Your task to perform on an android device: Open Google Maps and go to "Timeline" Image 0: 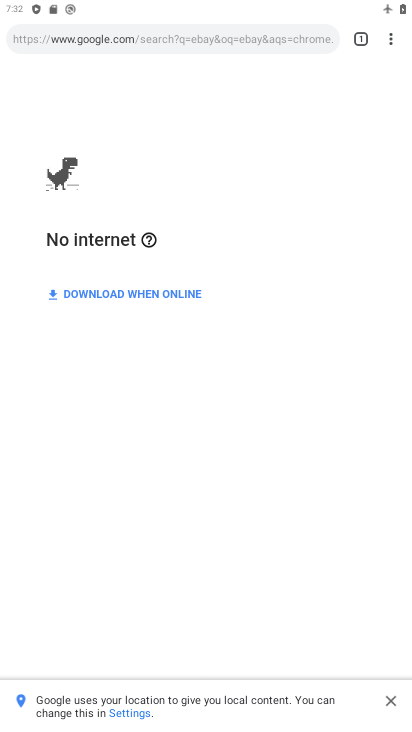
Step 0: press home button
Your task to perform on an android device: Open Google Maps and go to "Timeline" Image 1: 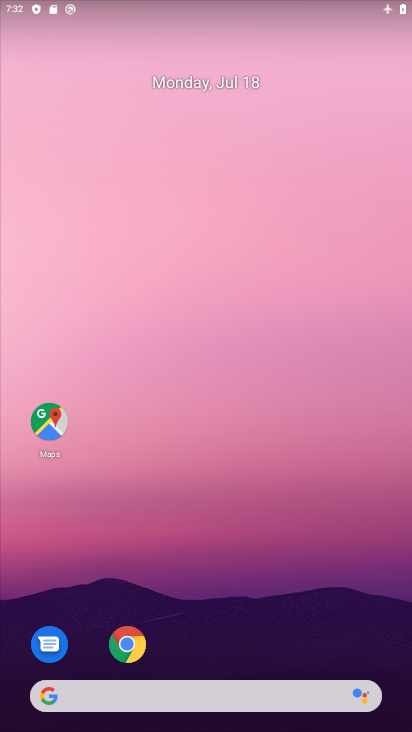
Step 1: drag from (363, 630) to (404, 459)
Your task to perform on an android device: Open Google Maps and go to "Timeline" Image 2: 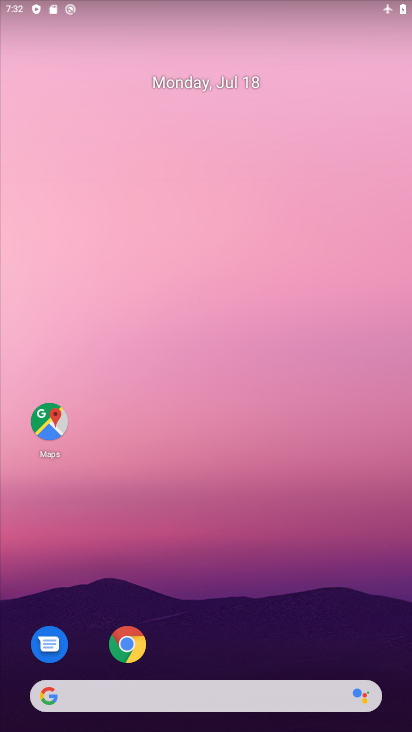
Step 2: drag from (318, 620) to (400, 233)
Your task to perform on an android device: Open Google Maps and go to "Timeline" Image 3: 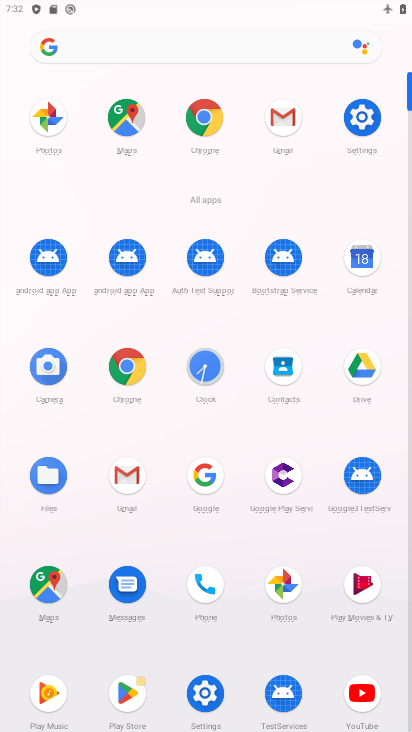
Step 3: click (127, 123)
Your task to perform on an android device: Open Google Maps and go to "Timeline" Image 4: 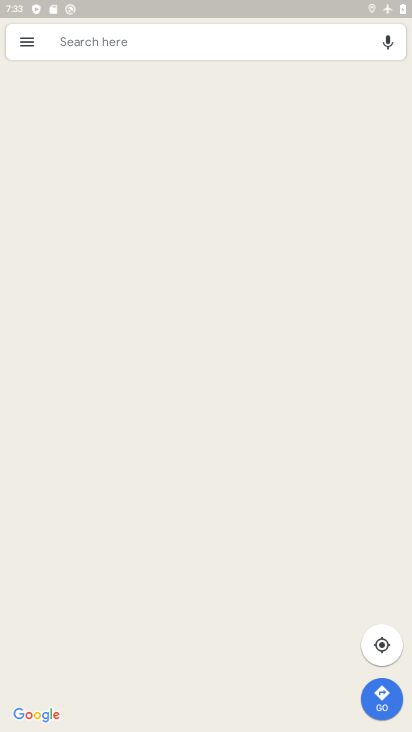
Step 4: click (26, 39)
Your task to perform on an android device: Open Google Maps and go to "Timeline" Image 5: 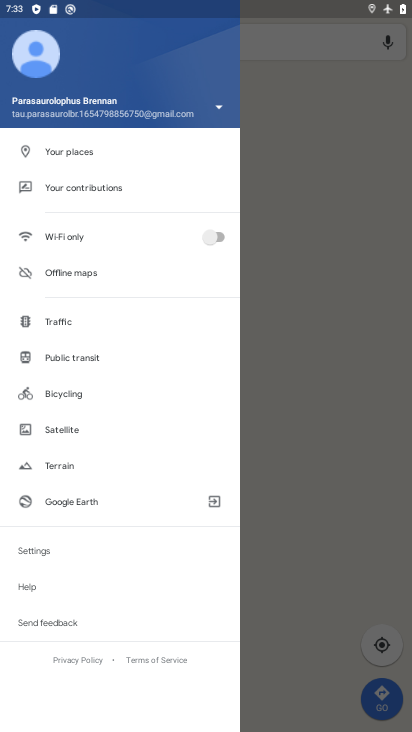
Step 5: task complete